Your task to perform on an android device: change notification settings in the gmail app Image 0: 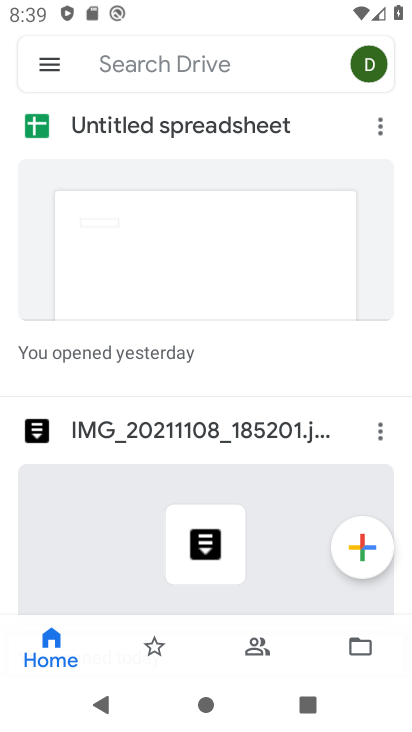
Step 0: press home button
Your task to perform on an android device: change notification settings in the gmail app Image 1: 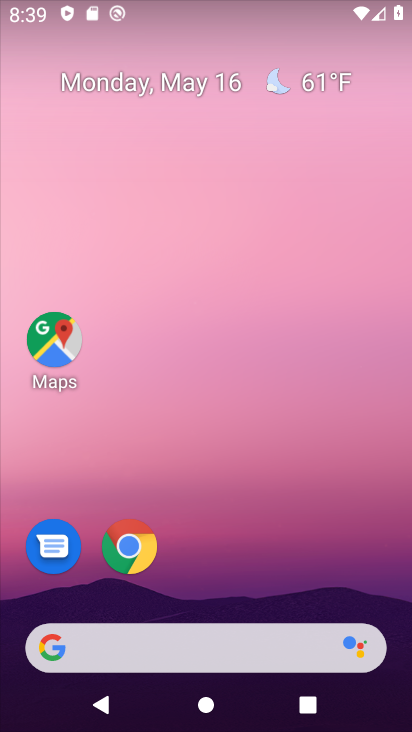
Step 1: drag from (259, 523) to (205, 159)
Your task to perform on an android device: change notification settings in the gmail app Image 2: 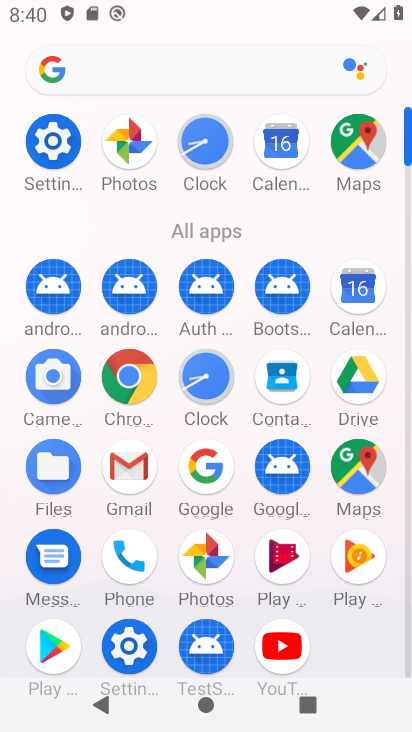
Step 2: click (126, 480)
Your task to perform on an android device: change notification settings in the gmail app Image 3: 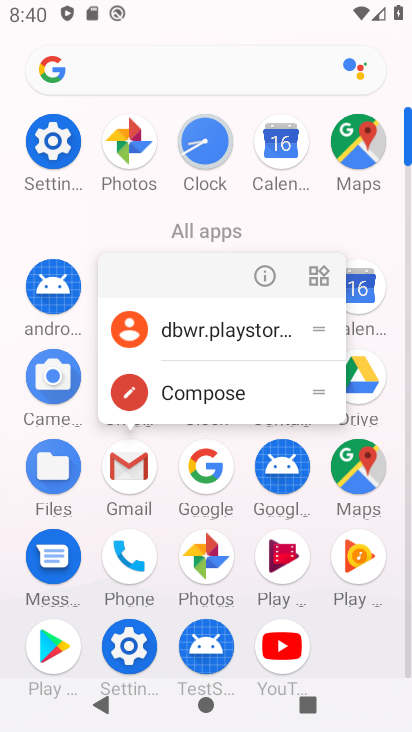
Step 3: click (263, 281)
Your task to perform on an android device: change notification settings in the gmail app Image 4: 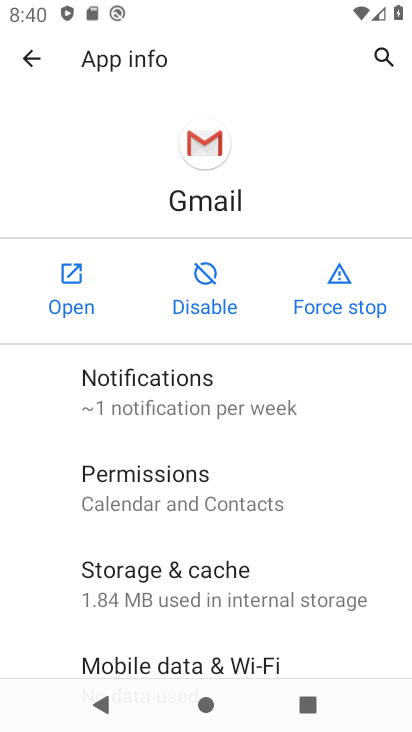
Step 4: click (142, 399)
Your task to perform on an android device: change notification settings in the gmail app Image 5: 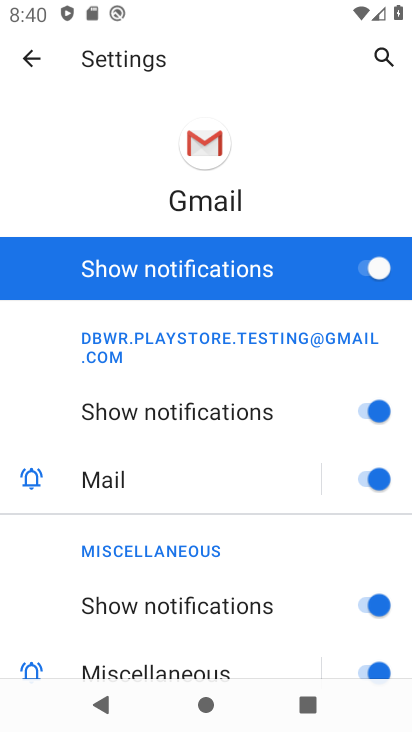
Step 5: click (383, 473)
Your task to perform on an android device: change notification settings in the gmail app Image 6: 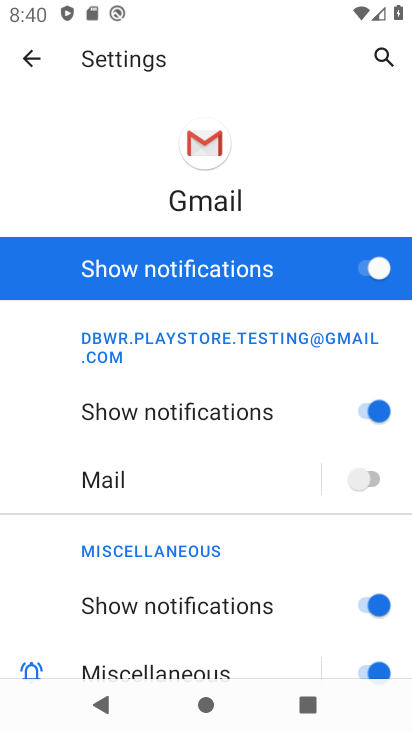
Step 6: click (390, 408)
Your task to perform on an android device: change notification settings in the gmail app Image 7: 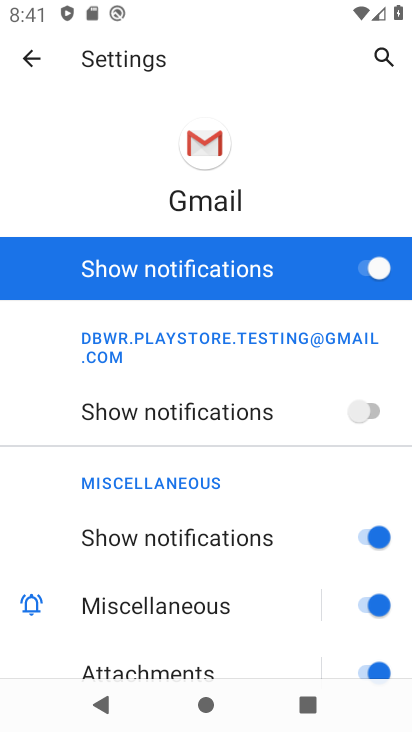
Step 7: task complete